Your task to perform on an android device: Open Google Chrome and open the bookmarks view Image 0: 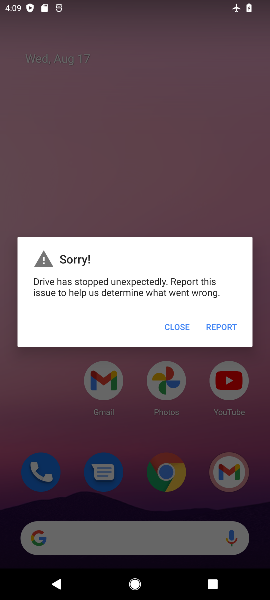
Step 0: click (169, 315)
Your task to perform on an android device: Open Google Chrome and open the bookmarks view Image 1: 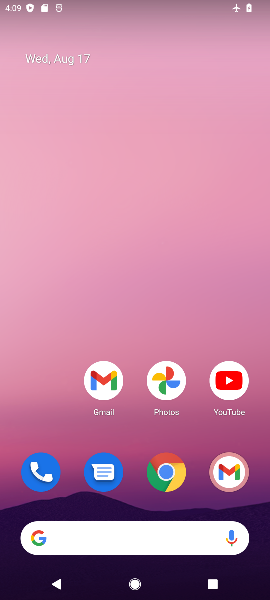
Step 1: click (161, 464)
Your task to perform on an android device: Open Google Chrome and open the bookmarks view Image 2: 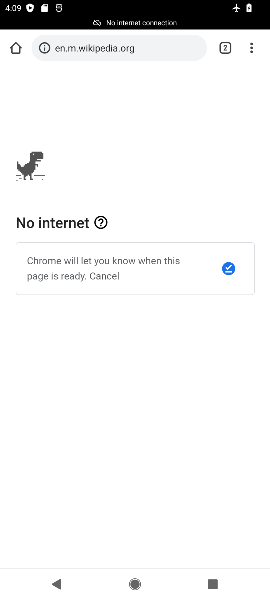
Step 2: click (252, 42)
Your task to perform on an android device: Open Google Chrome and open the bookmarks view Image 3: 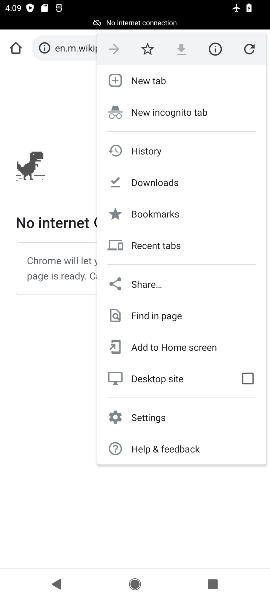
Step 3: click (180, 215)
Your task to perform on an android device: Open Google Chrome and open the bookmarks view Image 4: 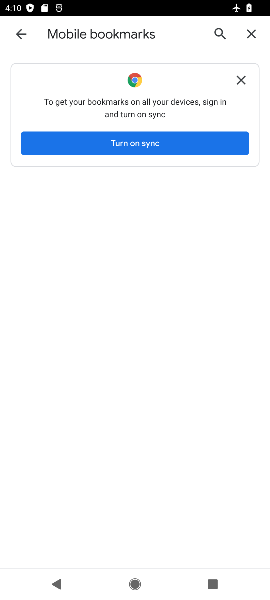
Step 4: task complete